Your task to perform on an android device: turn smart compose on in the gmail app Image 0: 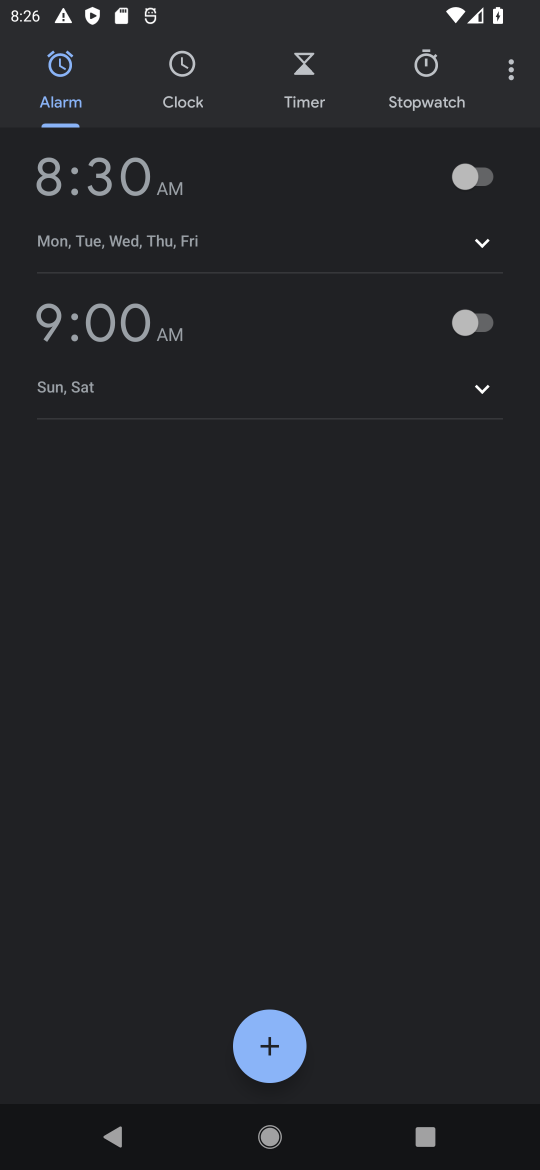
Step 0: press home button
Your task to perform on an android device: turn smart compose on in the gmail app Image 1: 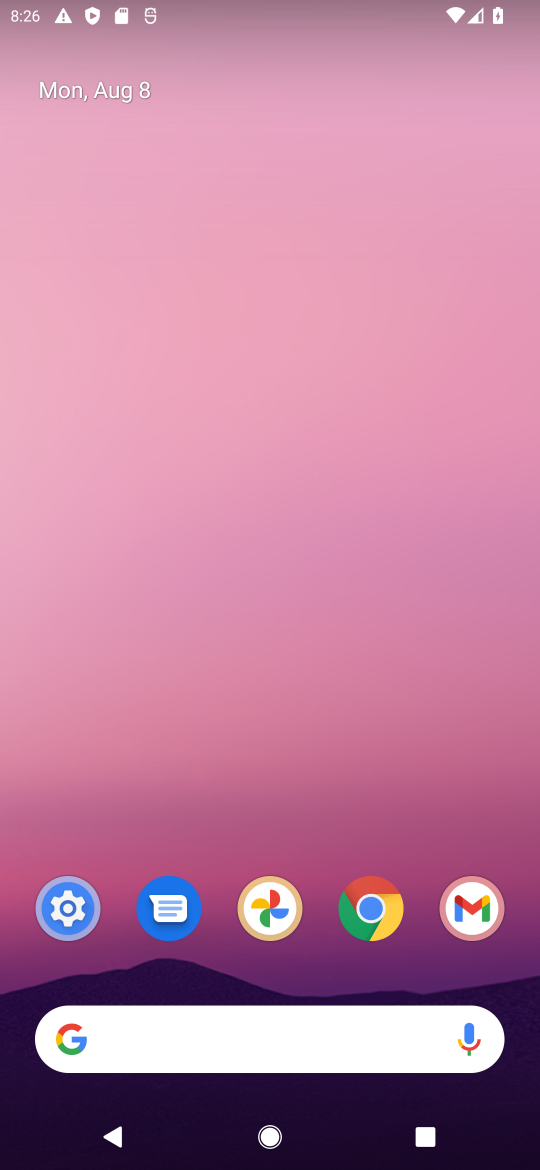
Step 1: click (463, 909)
Your task to perform on an android device: turn smart compose on in the gmail app Image 2: 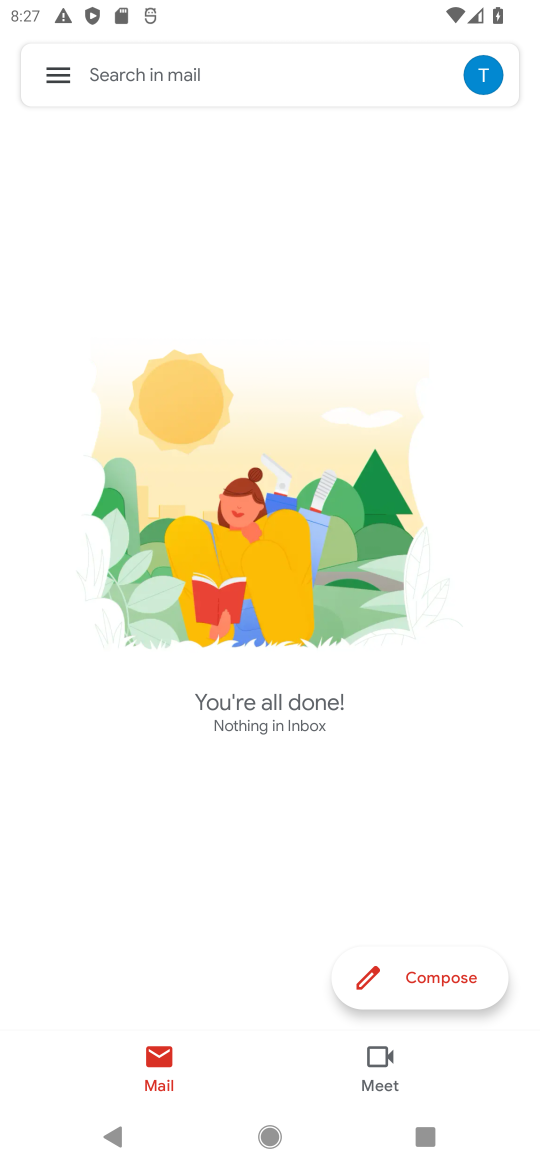
Step 2: click (60, 84)
Your task to perform on an android device: turn smart compose on in the gmail app Image 3: 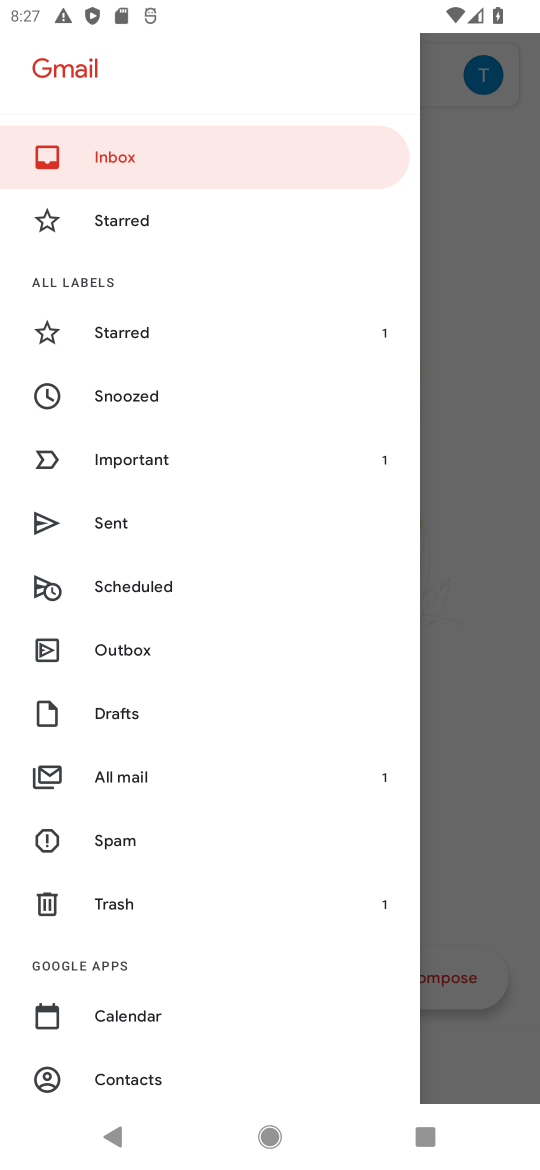
Step 3: click (459, 701)
Your task to perform on an android device: turn smart compose on in the gmail app Image 4: 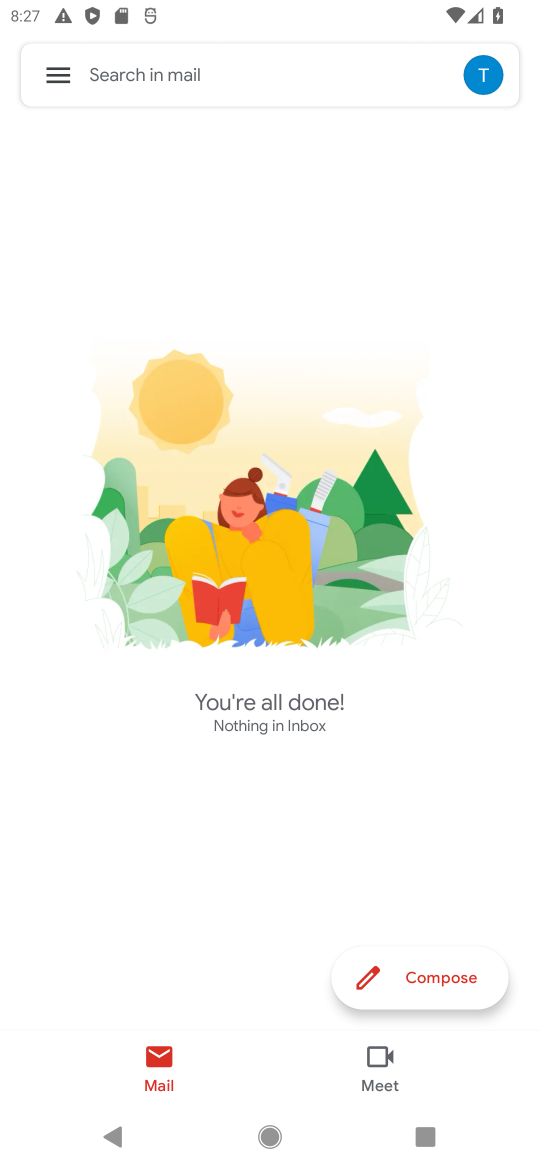
Step 4: click (444, 747)
Your task to perform on an android device: turn smart compose on in the gmail app Image 5: 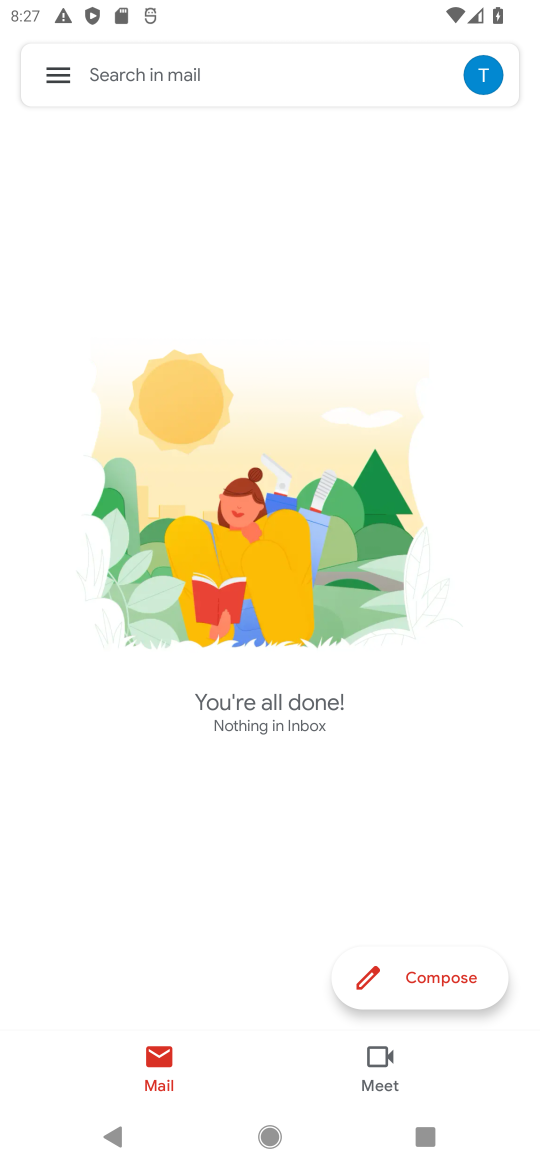
Step 5: click (434, 986)
Your task to perform on an android device: turn smart compose on in the gmail app Image 6: 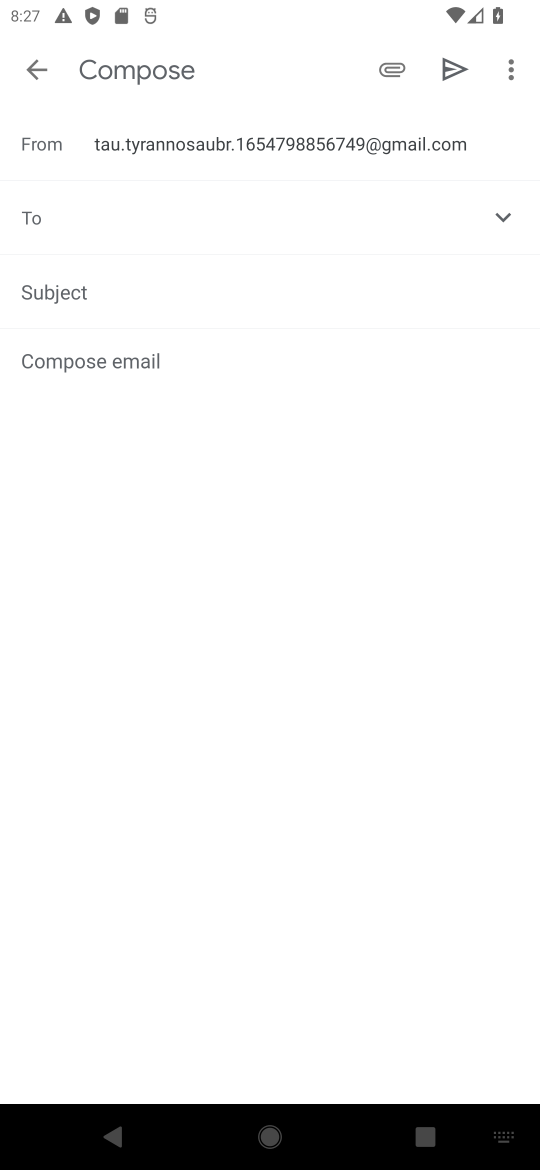
Step 6: task complete